Your task to perform on an android device: open a new tab in the chrome app Image 0: 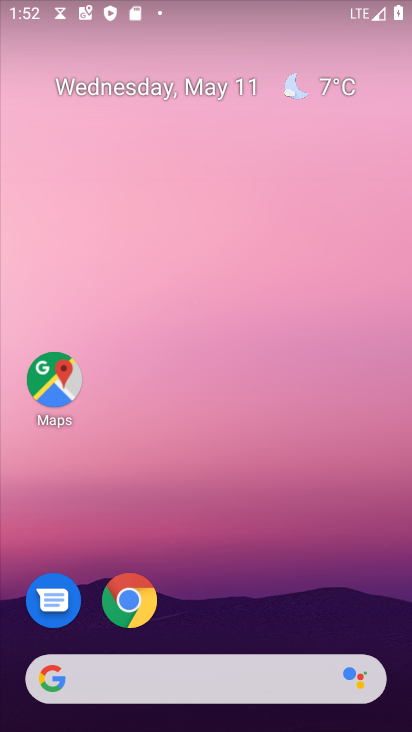
Step 0: click (132, 597)
Your task to perform on an android device: open a new tab in the chrome app Image 1: 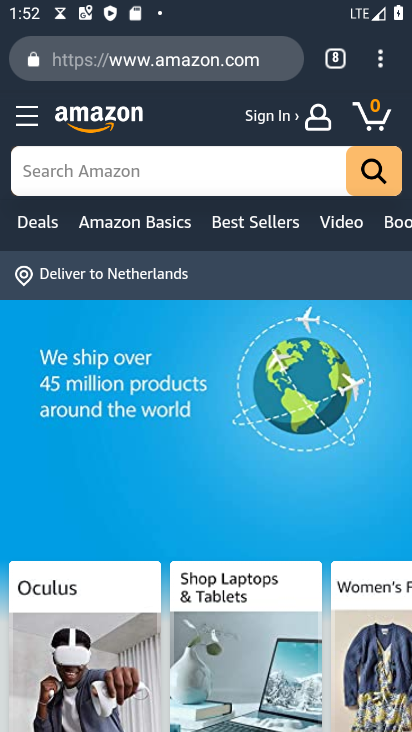
Step 1: click (395, 59)
Your task to perform on an android device: open a new tab in the chrome app Image 2: 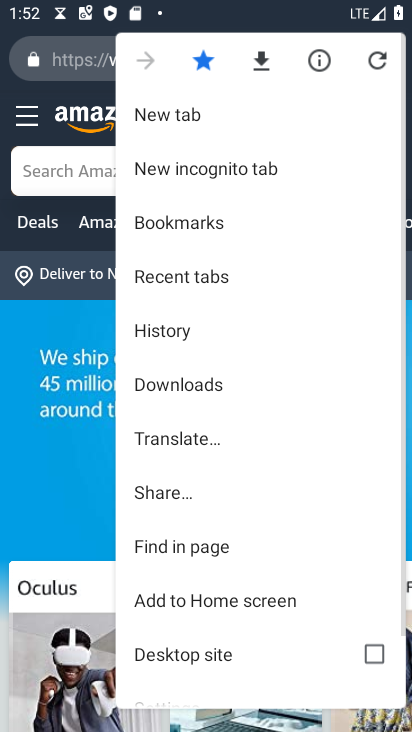
Step 2: click (224, 123)
Your task to perform on an android device: open a new tab in the chrome app Image 3: 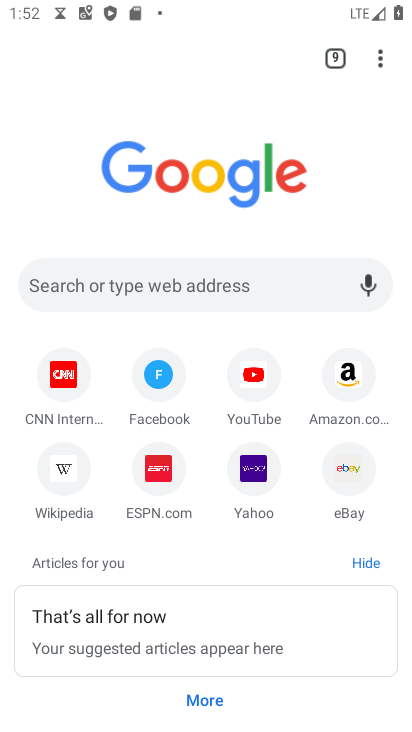
Step 3: task complete